Your task to perform on an android device: open app "Walmart Shopping & Grocery" (install if not already installed) and go to login screen Image 0: 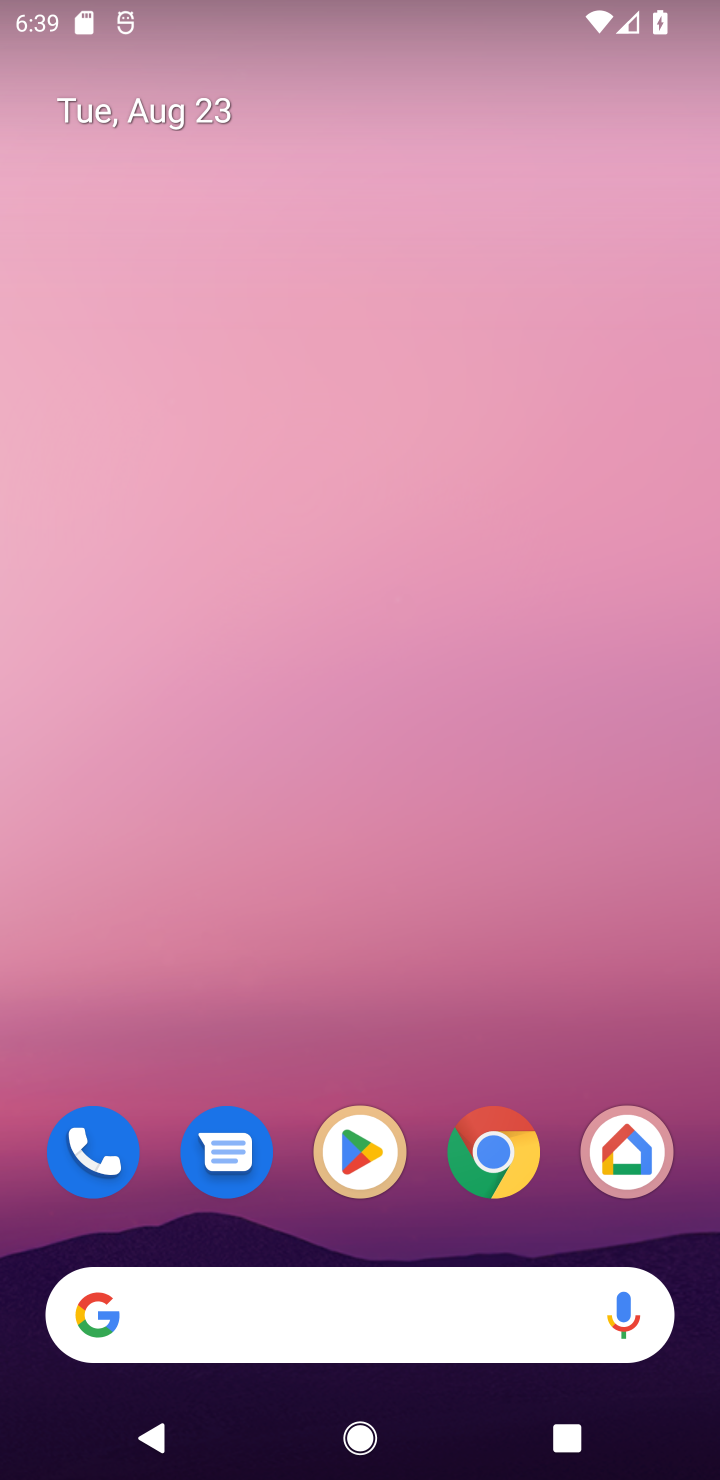
Step 0: click (362, 1147)
Your task to perform on an android device: open app "Walmart Shopping & Grocery" (install if not already installed) and go to login screen Image 1: 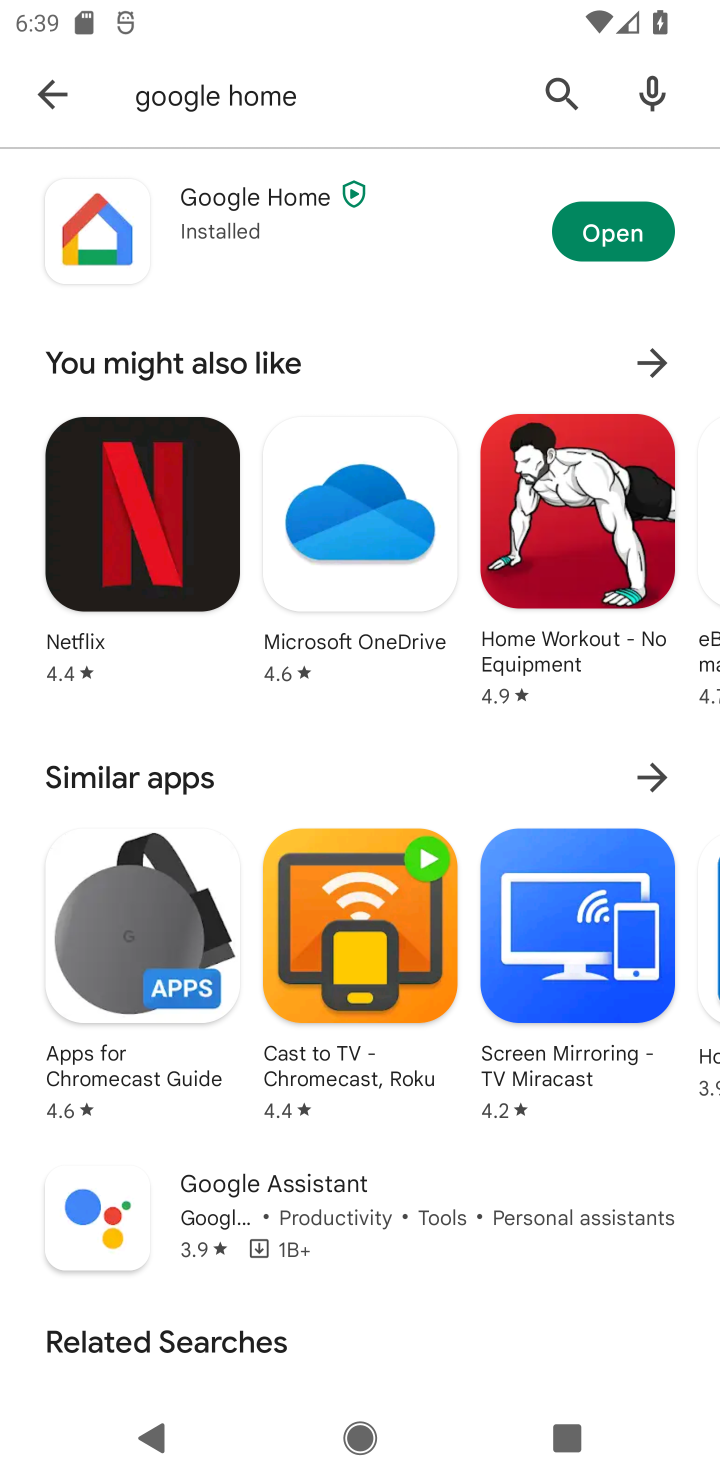
Step 1: click (566, 95)
Your task to perform on an android device: open app "Walmart Shopping & Grocery" (install if not already installed) and go to login screen Image 2: 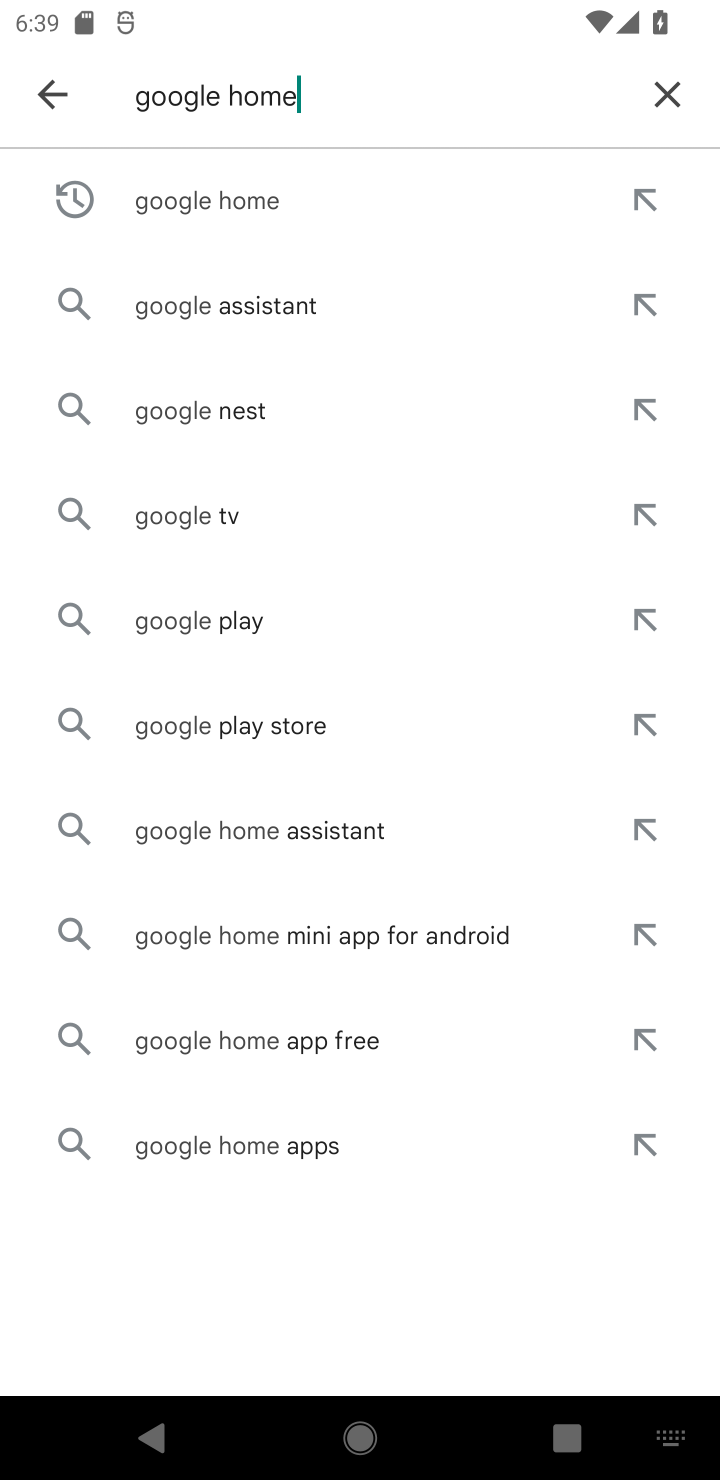
Step 2: click (702, 90)
Your task to perform on an android device: open app "Walmart Shopping & Grocery" (install if not already installed) and go to login screen Image 3: 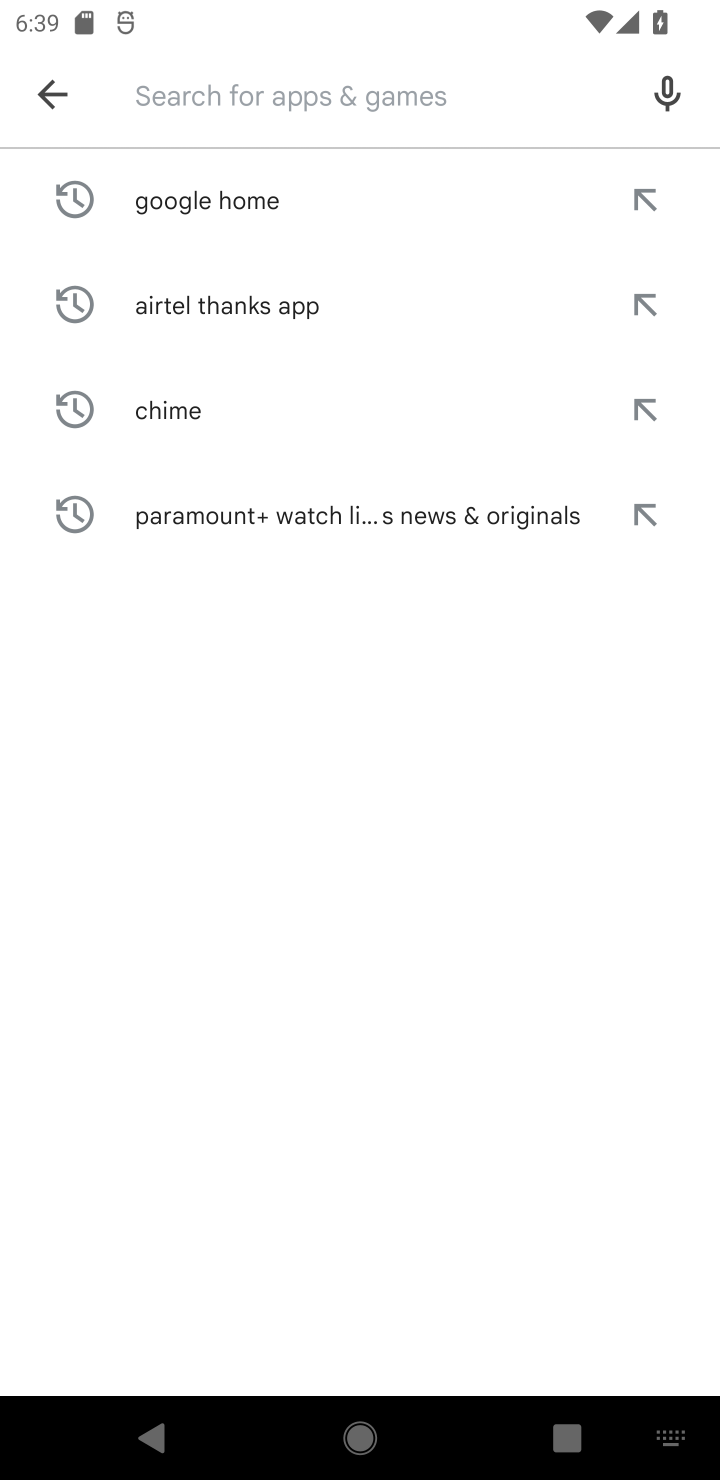
Step 3: click (253, 68)
Your task to perform on an android device: open app "Walmart Shopping & Grocery" (install if not already installed) and go to login screen Image 4: 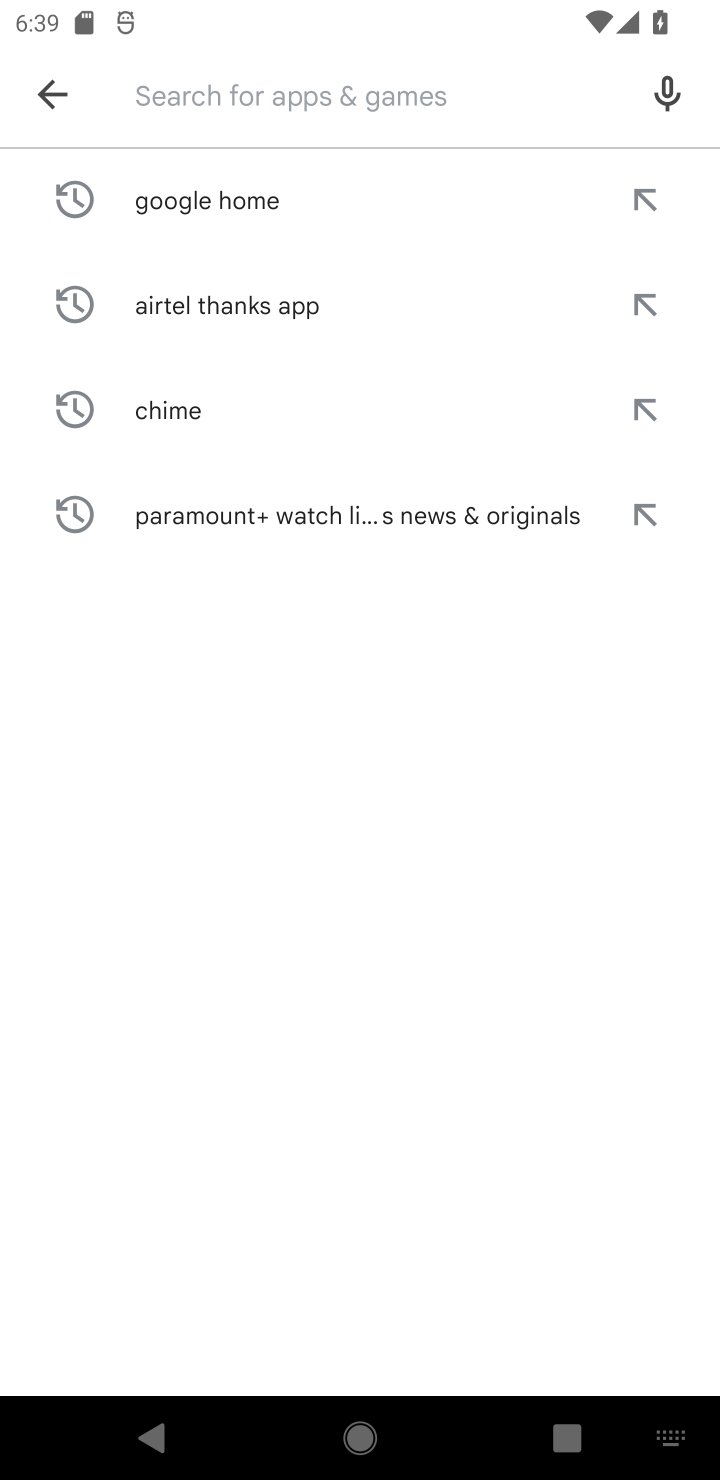
Step 4: type "Walmart Shopping & Grocery"
Your task to perform on an android device: open app "Walmart Shopping & Grocery" (install if not already installed) and go to login screen Image 5: 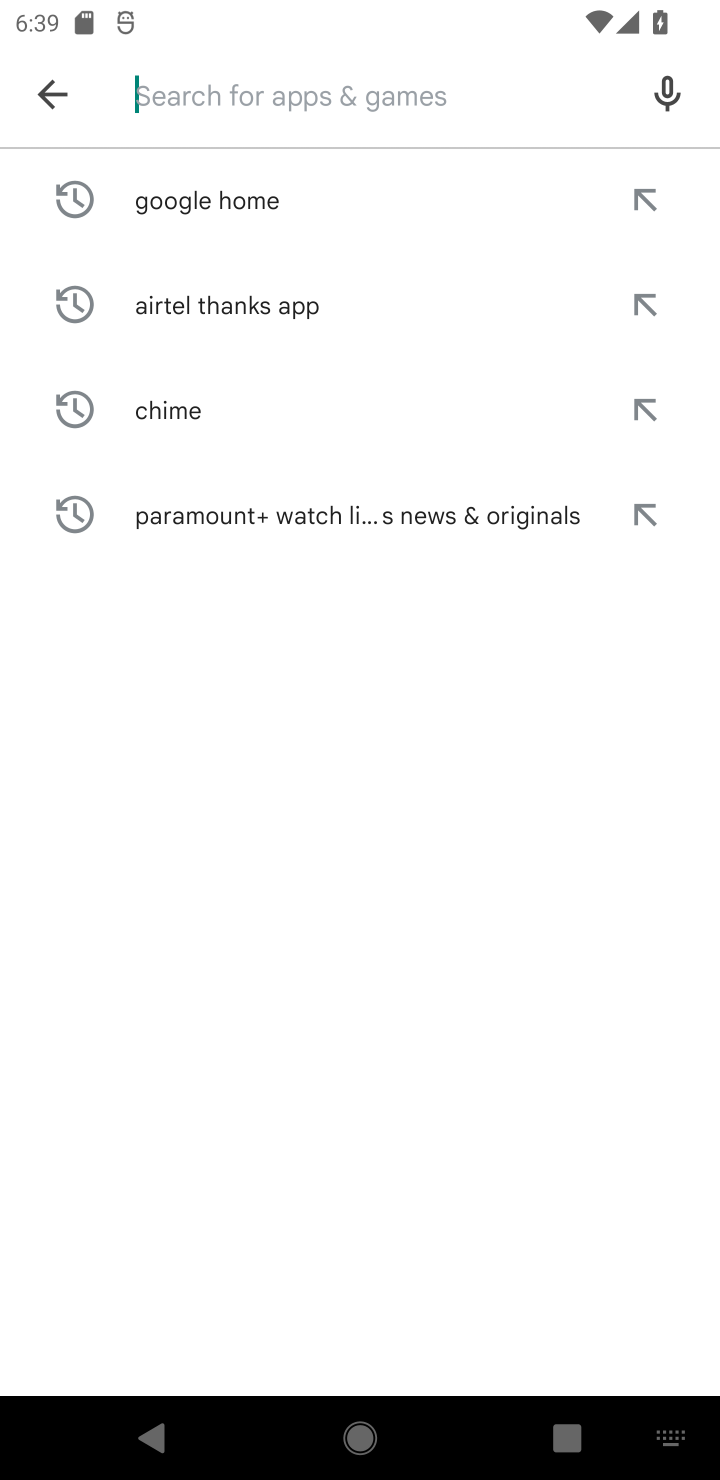
Step 5: click (202, 976)
Your task to perform on an android device: open app "Walmart Shopping & Grocery" (install if not already installed) and go to login screen Image 6: 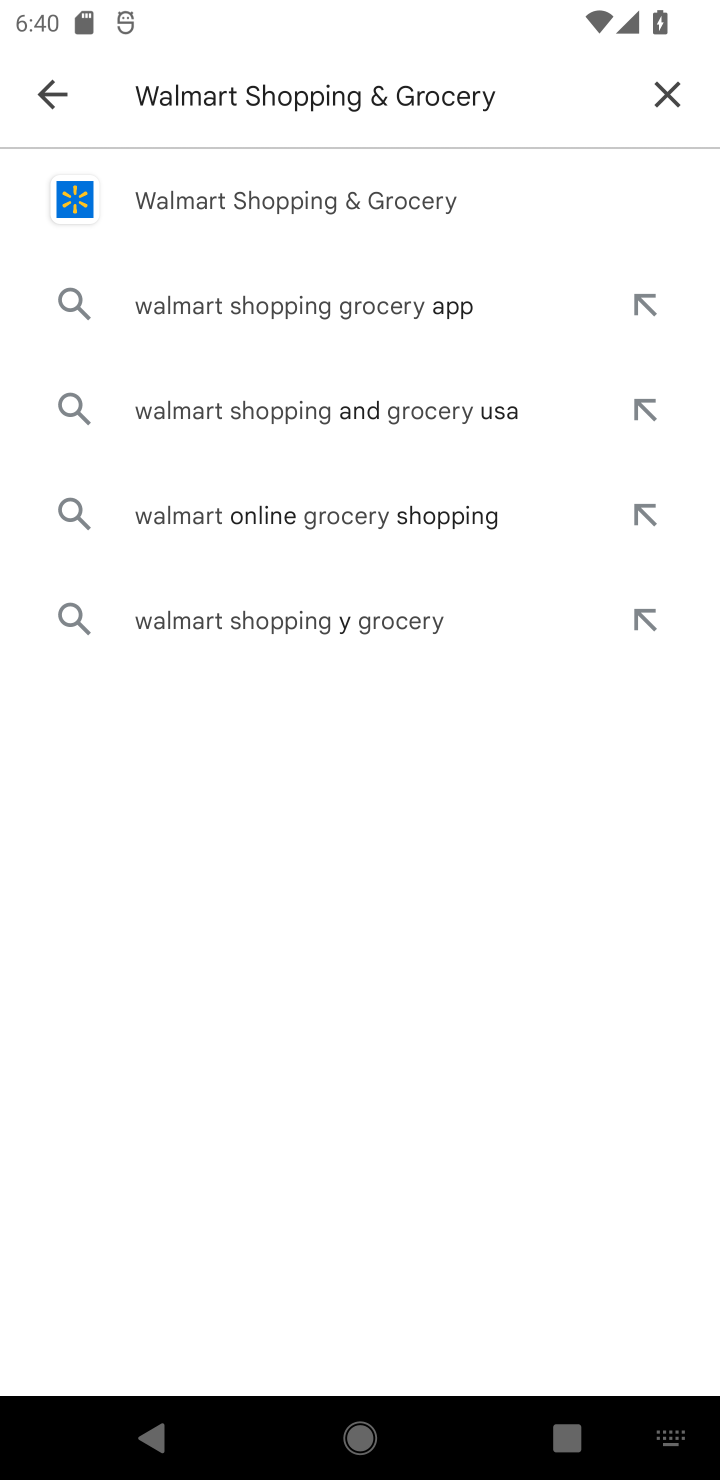
Step 6: click (231, 195)
Your task to perform on an android device: open app "Walmart Shopping & Grocery" (install if not already installed) and go to login screen Image 7: 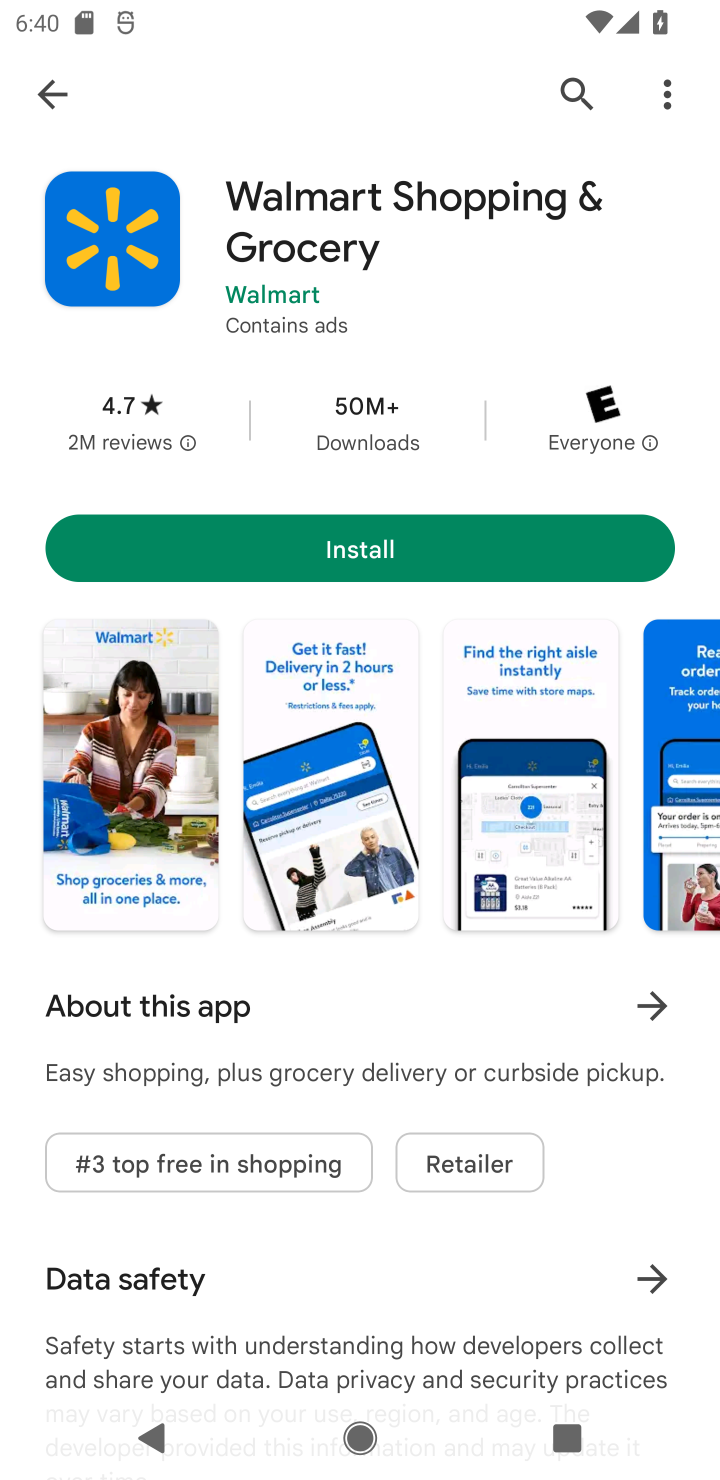
Step 7: click (403, 554)
Your task to perform on an android device: open app "Walmart Shopping & Grocery" (install if not already installed) and go to login screen Image 8: 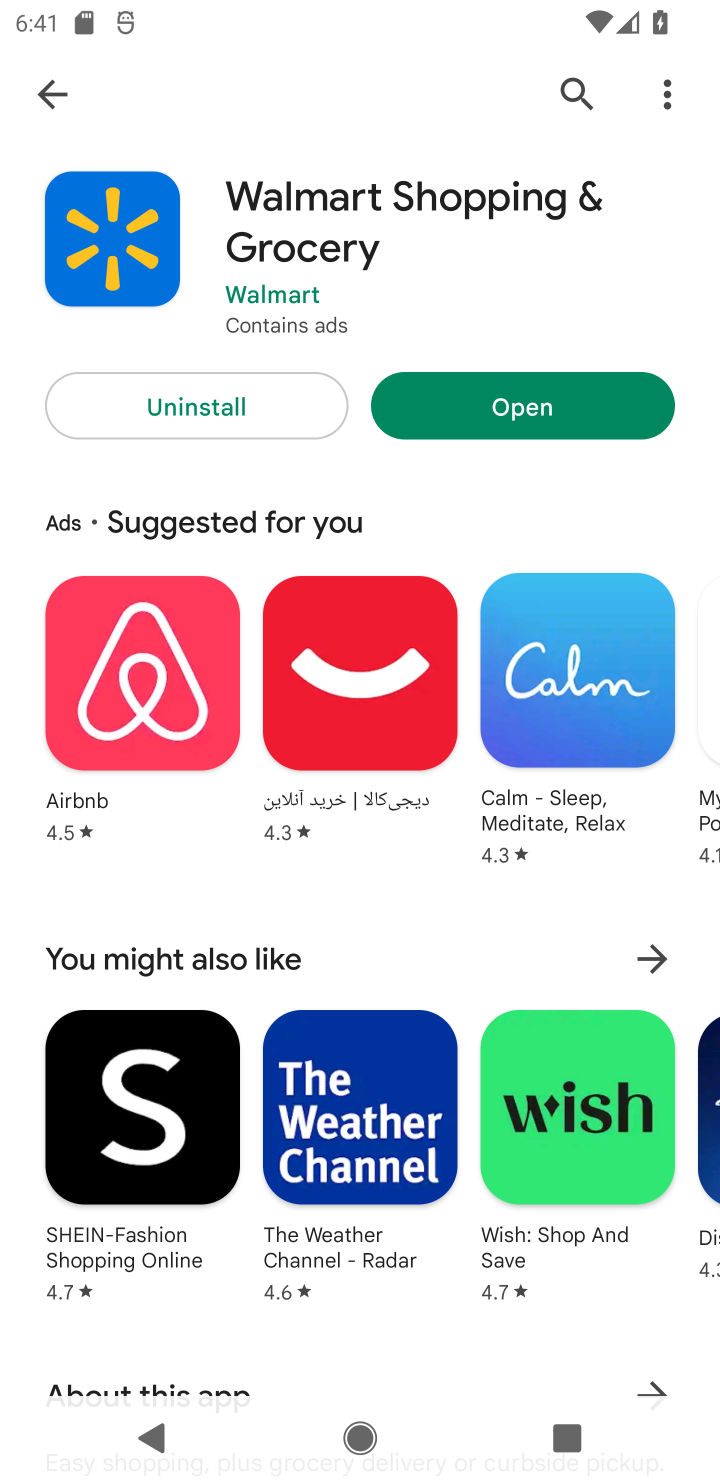
Step 8: click (501, 402)
Your task to perform on an android device: open app "Walmart Shopping & Grocery" (install if not already installed) and go to login screen Image 9: 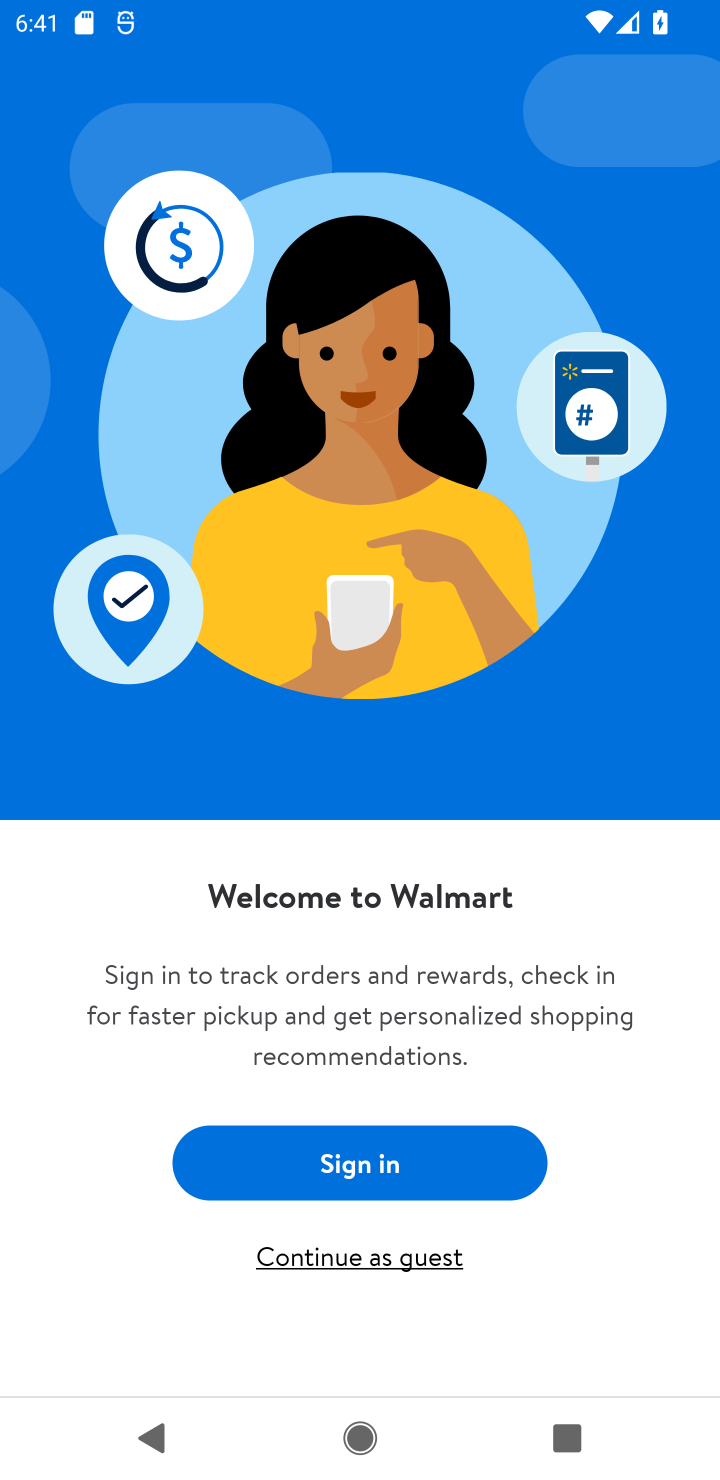
Step 9: click (352, 1164)
Your task to perform on an android device: open app "Walmart Shopping & Grocery" (install if not already installed) and go to login screen Image 10: 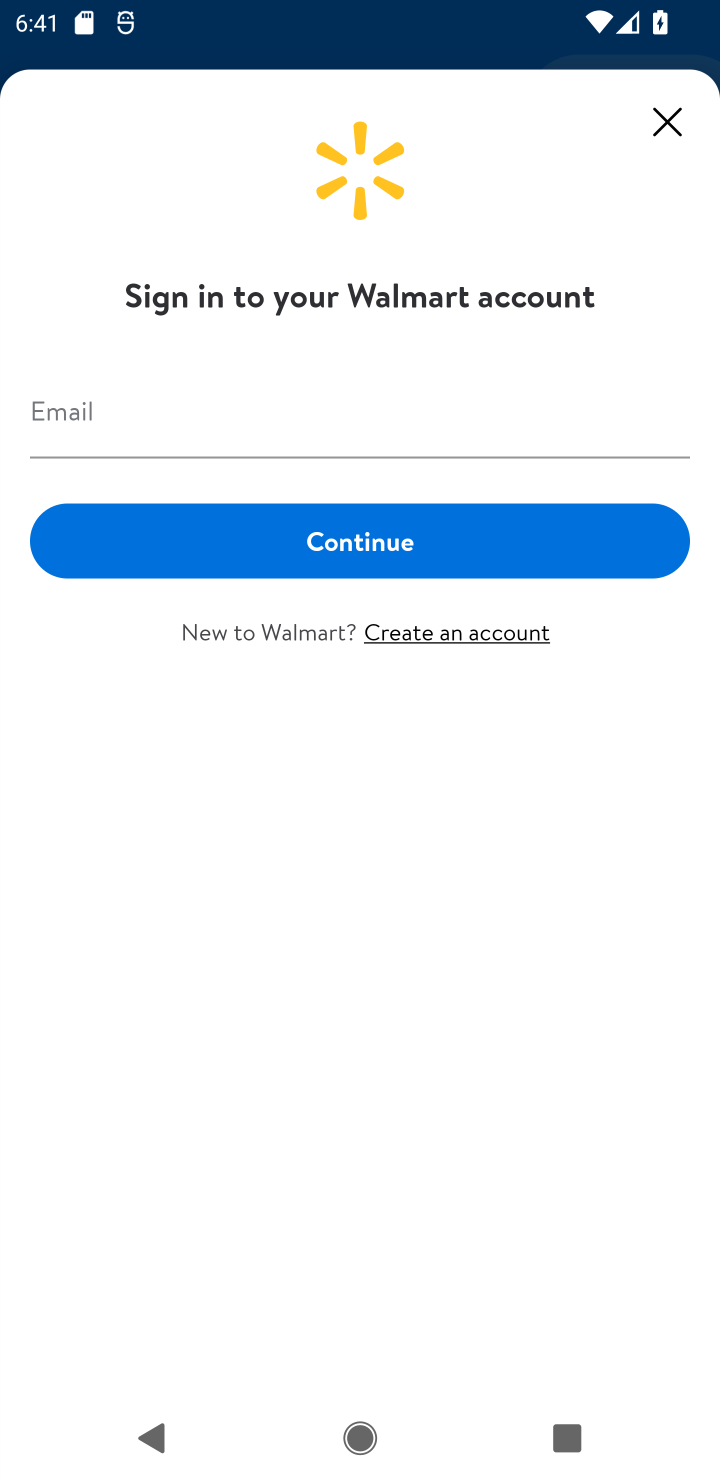
Step 10: task complete